Your task to perform on an android device: clear all cookies in the chrome app Image 0: 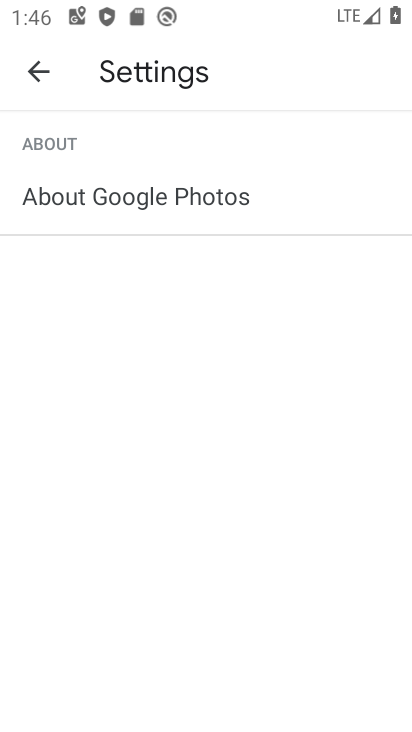
Step 0: press home button
Your task to perform on an android device: clear all cookies in the chrome app Image 1: 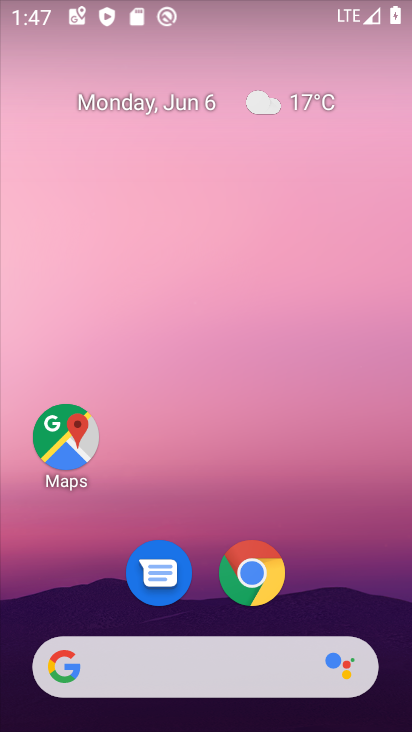
Step 1: drag from (354, 572) to (353, 176)
Your task to perform on an android device: clear all cookies in the chrome app Image 2: 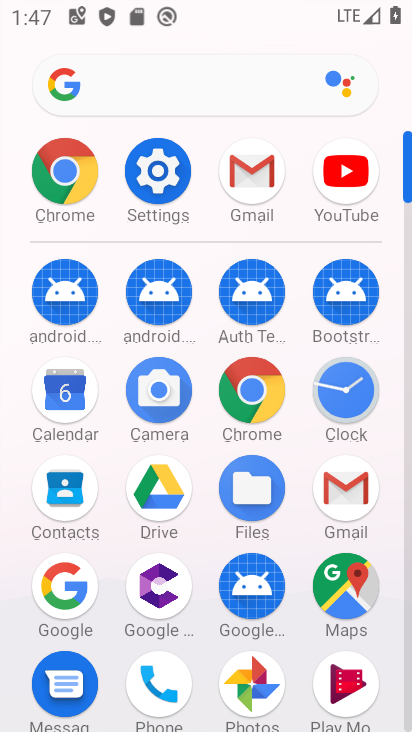
Step 2: click (269, 397)
Your task to perform on an android device: clear all cookies in the chrome app Image 3: 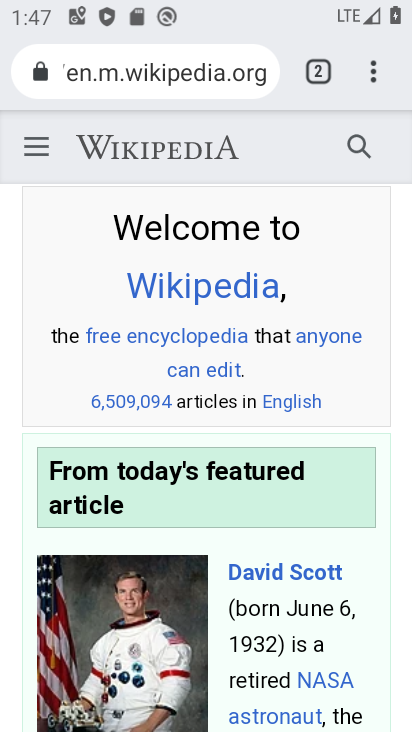
Step 3: click (372, 74)
Your task to perform on an android device: clear all cookies in the chrome app Image 4: 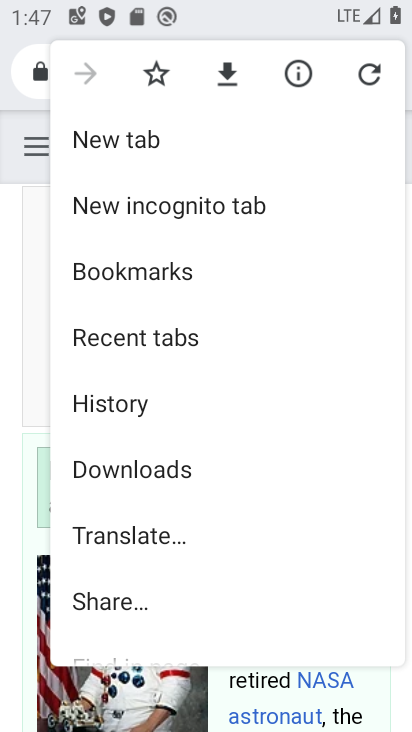
Step 4: drag from (338, 520) to (328, 385)
Your task to perform on an android device: clear all cookies in the chrome app Image 5: 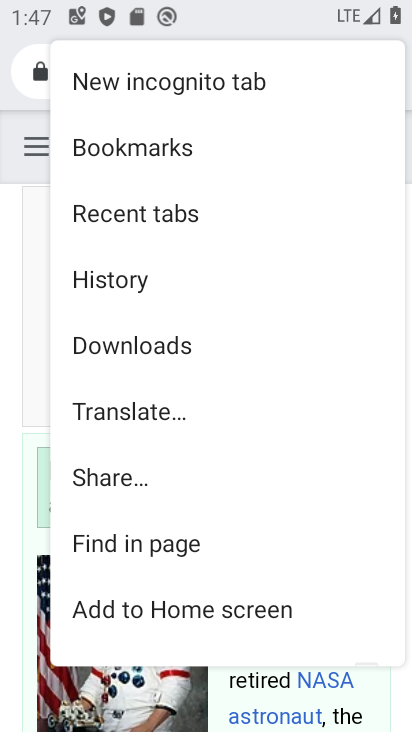
Step 5: drag from (336, 559) to (322, 346)
Your task to perform on an android device: clear all cookies in the chrome app Image 6: 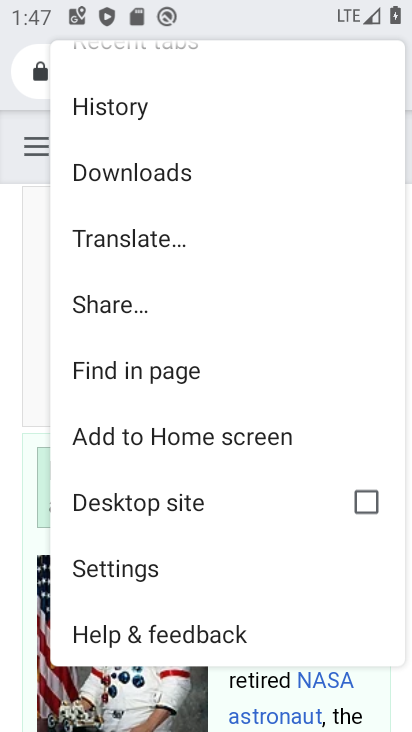
Step 6: click (141, 575)
Your task to perform on an android device: clear all cookies in the chrome app Image 7: 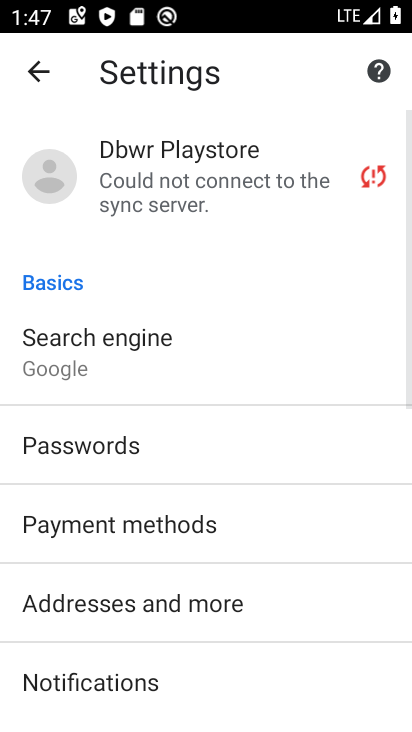
Step 7: drag from (350, 544) to (350, 433)
Your task to perform on an android device: clear all cookies in the chrome app Image 8: 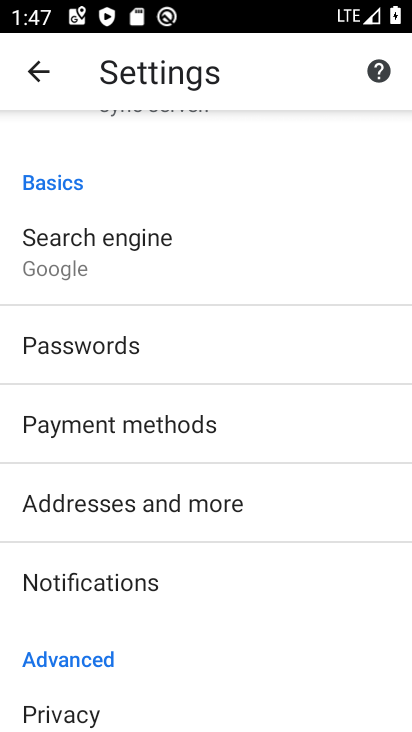
Step 8: drag from (358, 578) to (358, 445)
Your task to perform on an android device: clear all cookies in the chrome app Image 9: 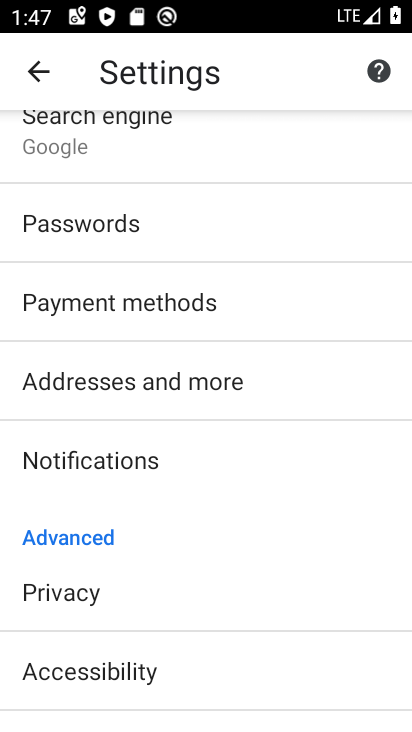
Step 9: drag from (354, 501) to (354, 308)
Your task to perform on an android device: clear all cookies in the chrome app Image 10: 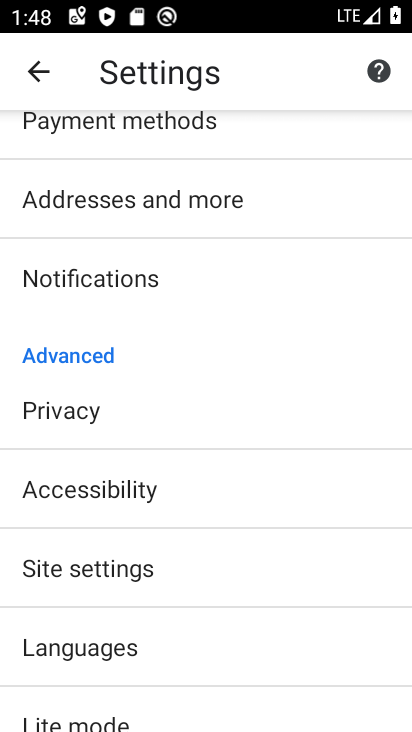
Step 10: drag from (330, 424) to (336, 263)
Your task to perform on an android device: clear all cookies in the chrome app Image 11: 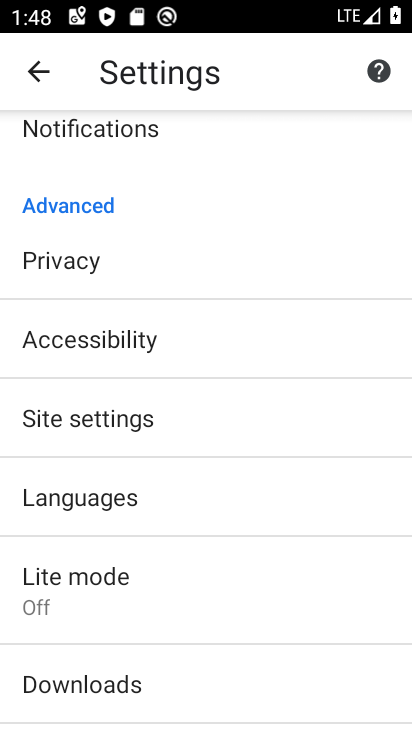
Step 11: click (171, 262)
Your task to perform on an android device: clear all cookies in the chrome app Image 12: 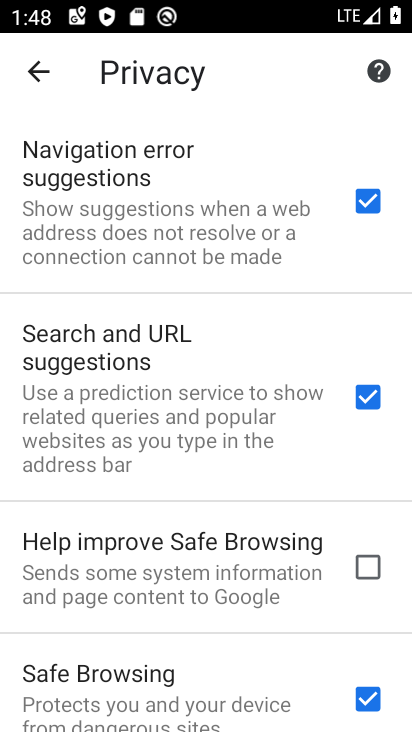
Step 12: drag from (259, 460) to (283, 331)
Your task to perform on an android device: clear all cookies in the chrome app Image 13: 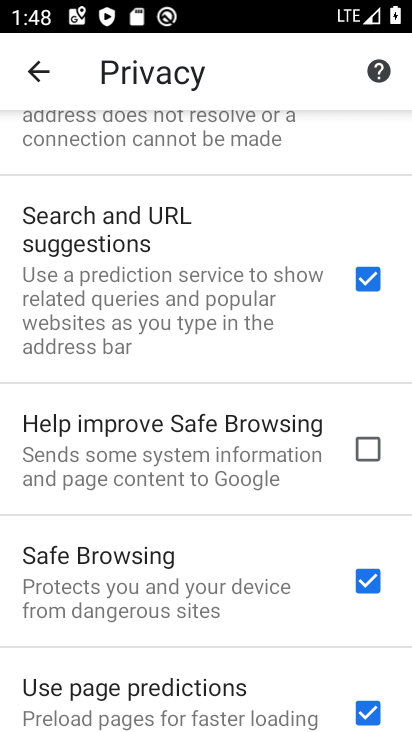
Step 13: drag from (303, 536) to (318, 334)
Your task to perform on an android device: clear all cookies in the chrome app Image 14: 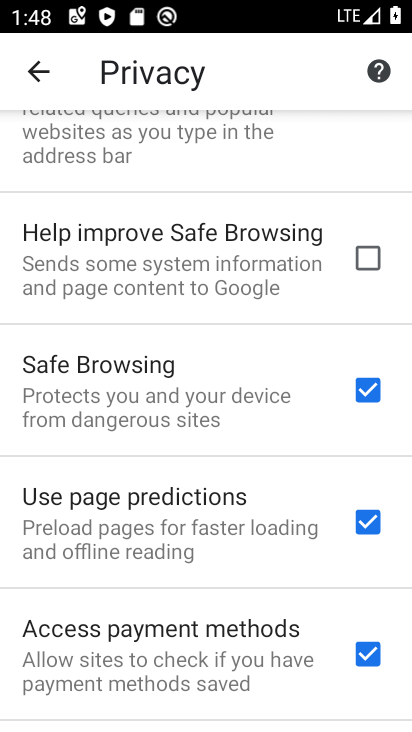
Step 14: drag from (291, 561) to (296, 222)
Your task to perform on an android device: clear all cookies in the chrome app Image 15: 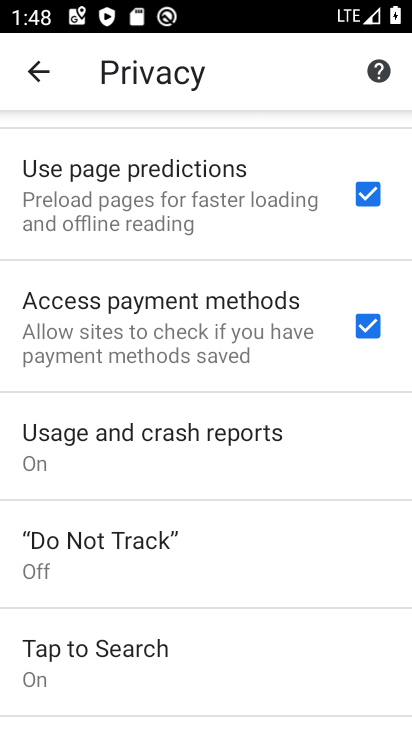
Step 15: drag from (270, 591) to (278, 131)
Your task to perform on an android device: clear all cookies in the chrome app Image 16: 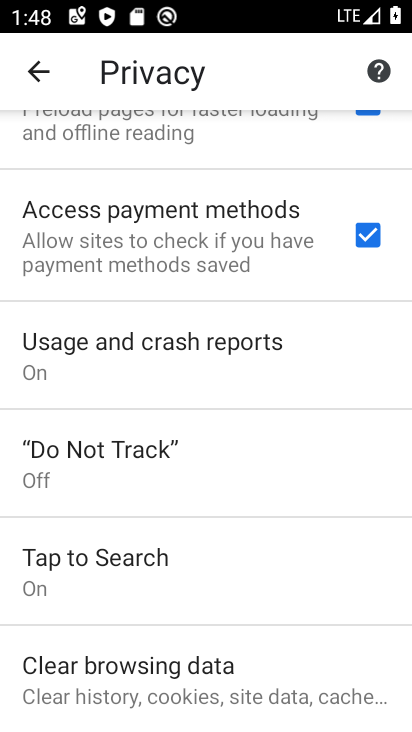
Step 16: drag from (298, 532) to (286, 333)
Your task to perform on an android device: clear all cookies in the chrome app Image 17: 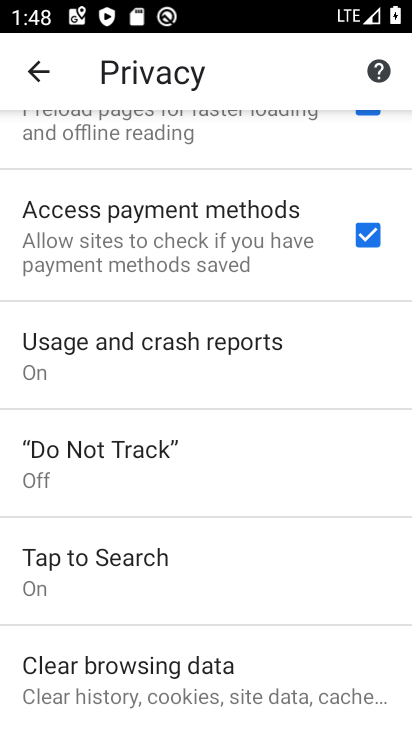
Step 17: click (241, 684)
Your task to perform on an android device: clear all cookies in the chrome app Image 18: 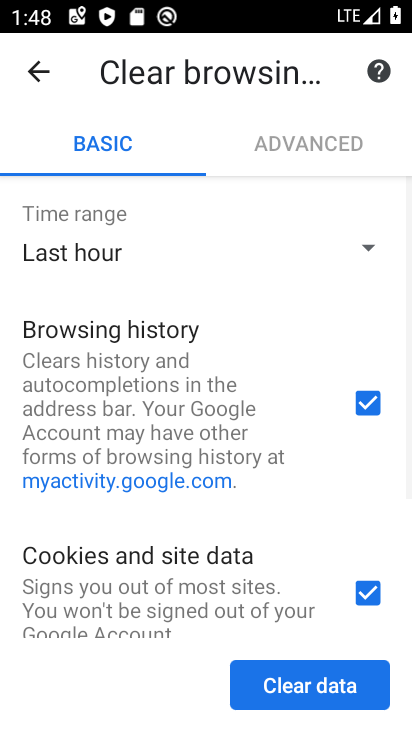
Step 18: click (308, 682)
Your task to perform on an android device: clear all cookies in the chrome app Image 19: 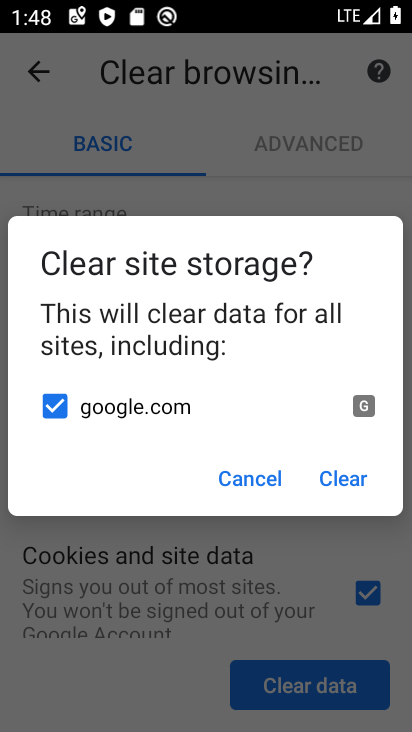
Step 19: click (331, 484)
Your task to perform on an android device: clear all cookies in the chrome app Image 20: 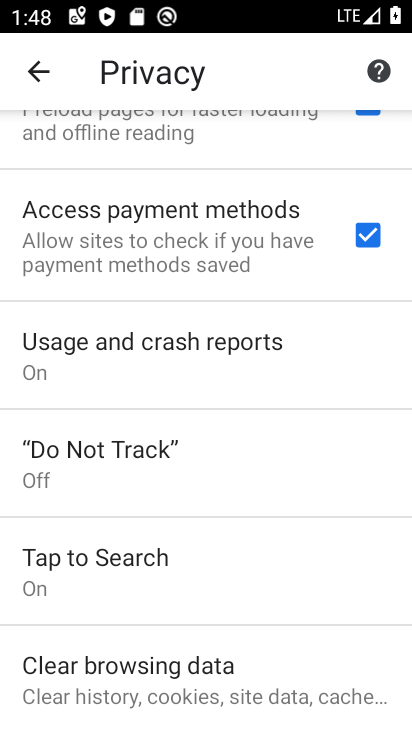
Step 20: task complete